Your task to perform on an android device: Search for pizza restaurants on Maps Image 0: 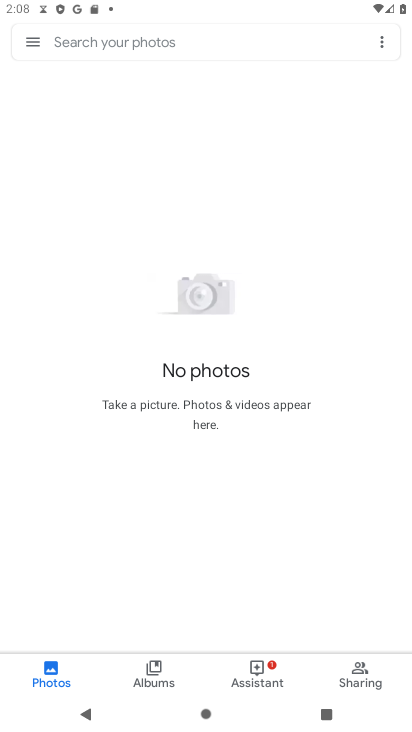
Step 0: press home button
Your task to perform on an android device: Search for pizza restaurants on Maps Image 1: 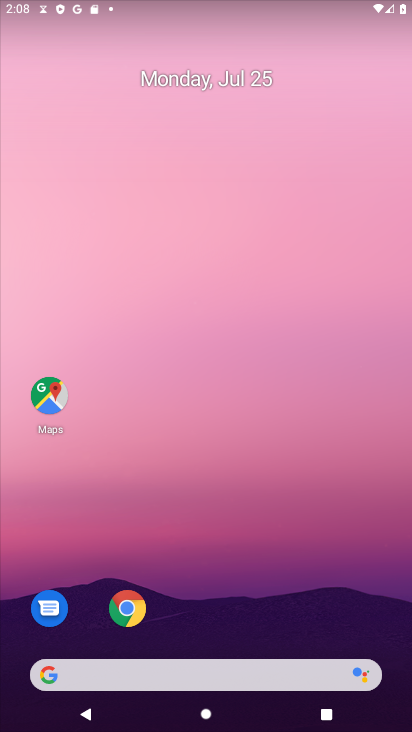
Step 1: click (50, 396)
Your task to perform on an android device: Search for pizza restaurants on Maps Image 2: 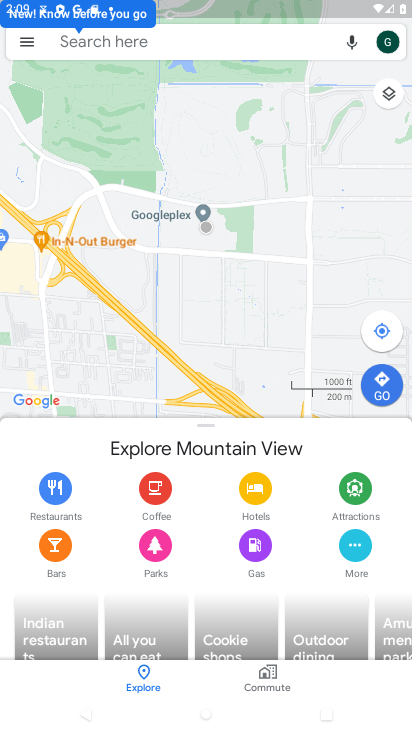
Step 2: click (164, 40)
Your task to perform on an android device: Search for pizza restaurants on Maps Image 3: 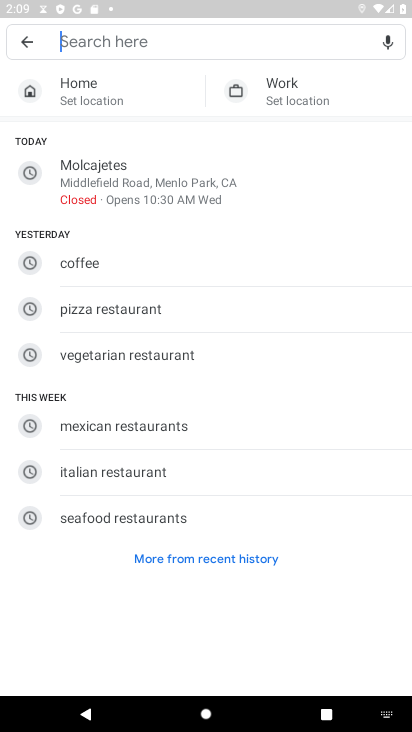
Step 3: type "pizza restaurants"
Your task to perform on an android device: Search for pizza restaurants on Maps Image 4: 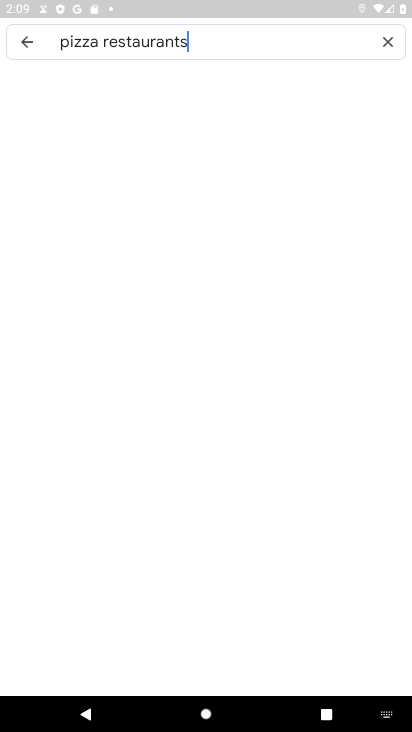
Step 4: type ""
Your task to perform on an android device: Search for pizza restaurants on Maps Image 5: 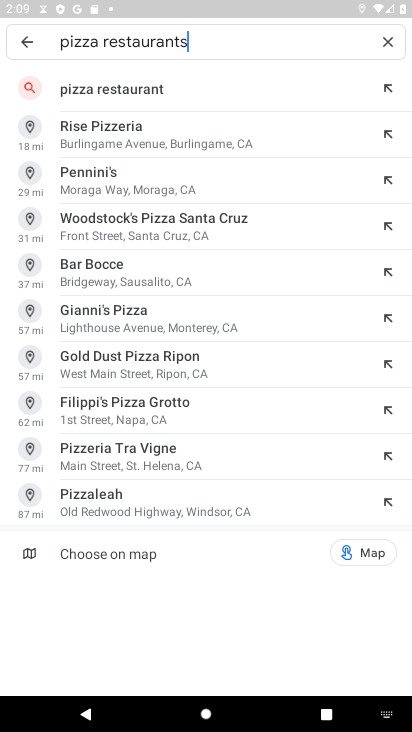
Step 5: click (126, 100)
Your task to perform on an android device: Search for pizza restaurants on Maps Image 6: 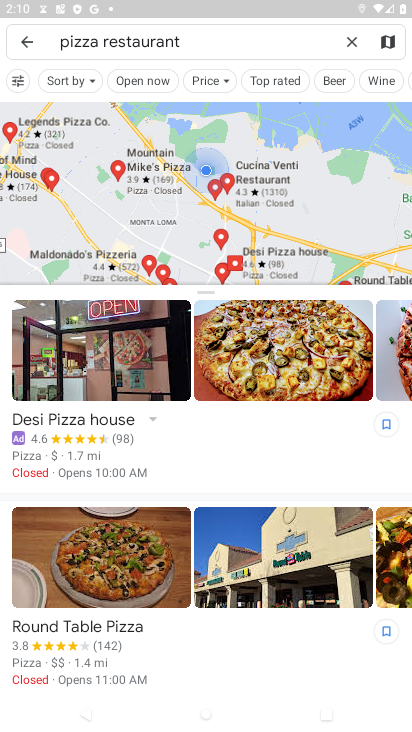
Step 6: task complete